Your task to perform on an android device: Open privacy settings Image 0: 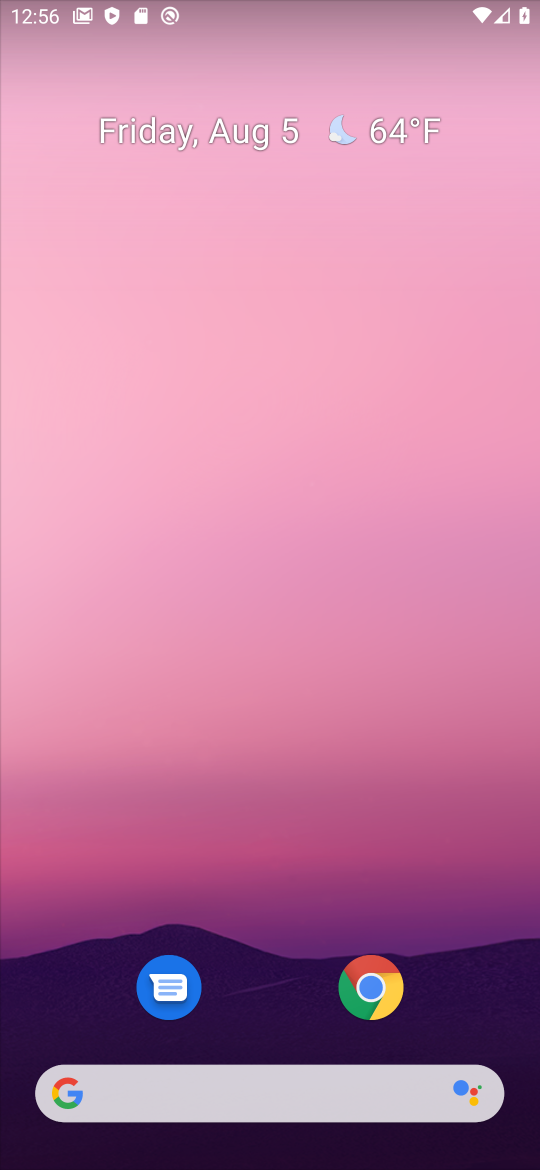
Step 0: click (268, 486)
Your task to perform on an android device: Open privacy settings Image 1: 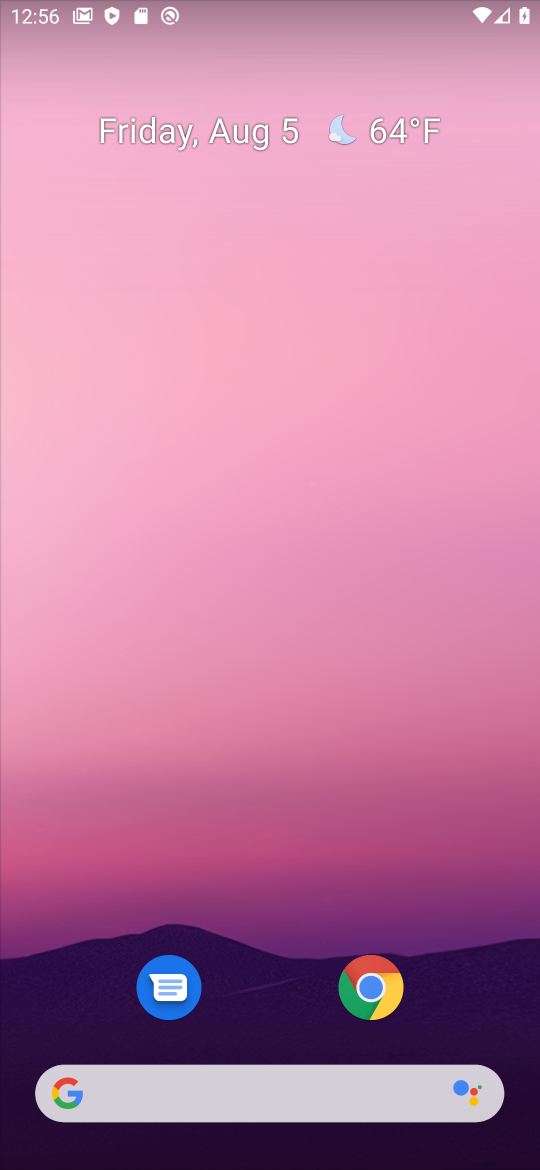
Step 1: drag from (293, 277) to (71, 30)
Your task to perform on an android device: Open privacy settings Image 2: 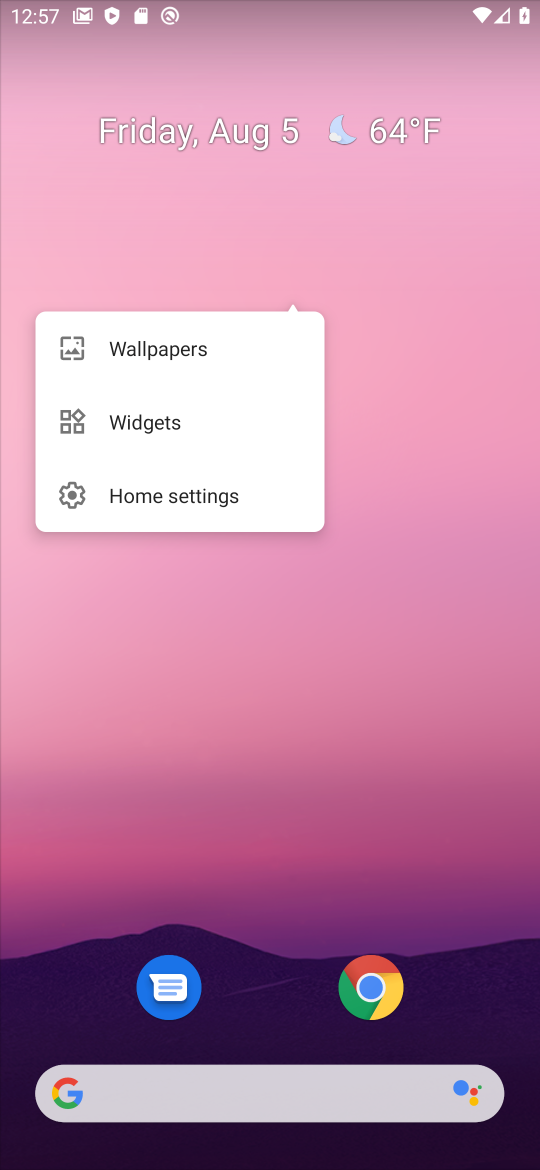
Step 2: drag from (350, 178) to (432, 322)
Your task to perform on an android device: Open privacy settings Image 3: 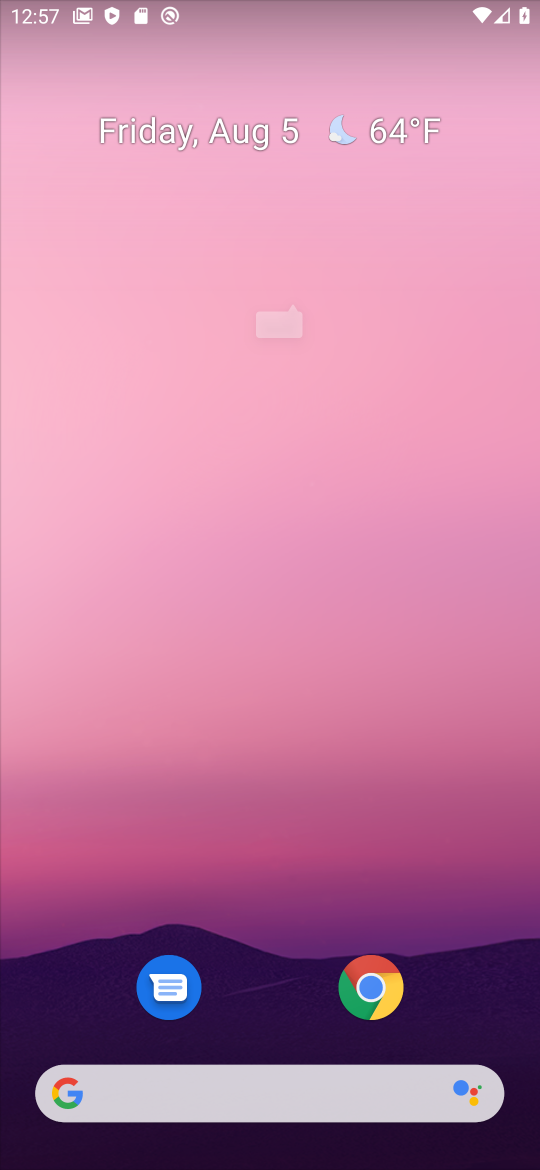
Step 3: drag from (222, 326) to (278, 655)
Your task to perform on an android device: Open privacy settings Image 4: 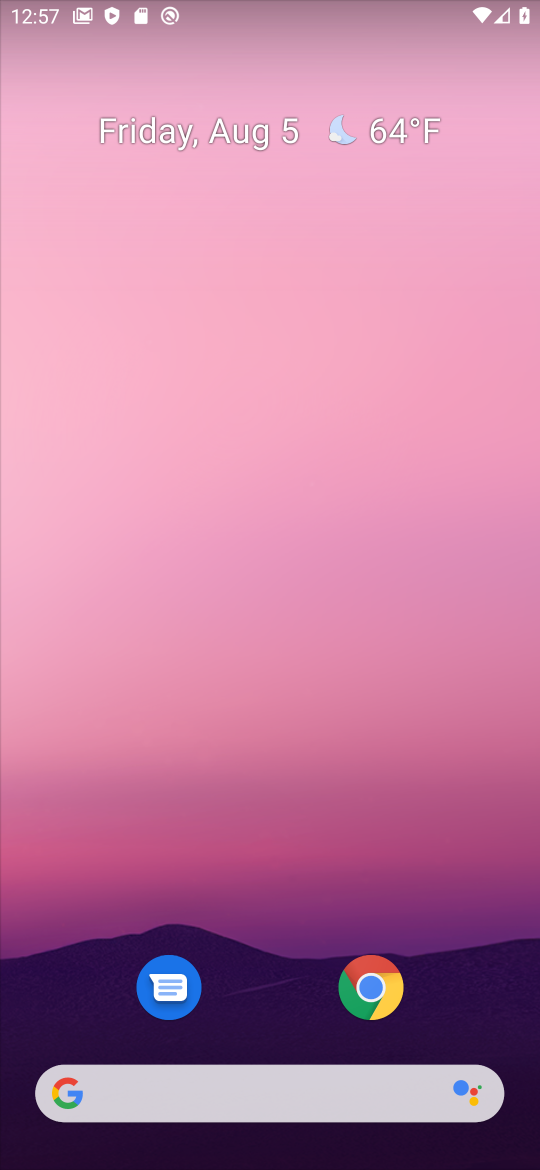
Step 4: drag from (235, 614) to (153, 423)
Your task to perform on an android device: Open privacy settings Image 5: 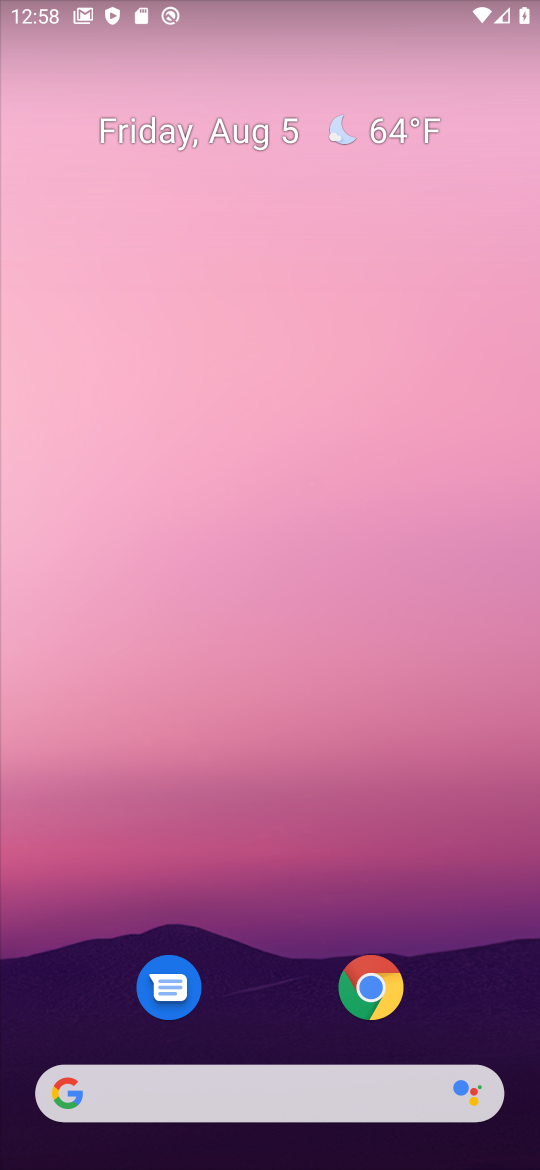
Step 5: drag from (289, 1052) to (322, 777)
Your task to perform on an android device: Open privacy settings Image 6: 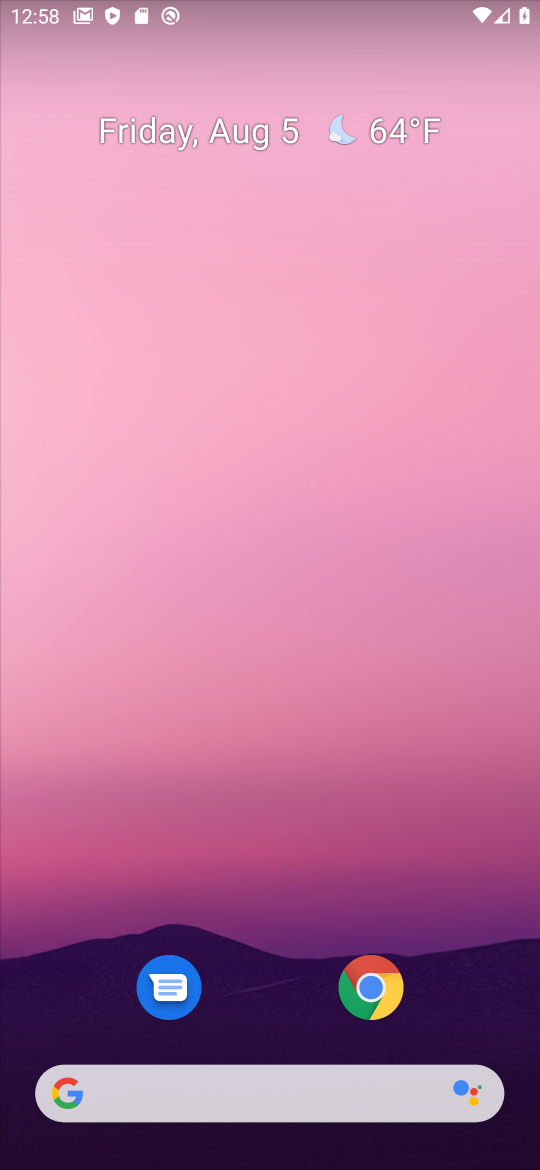
Step 6: drag from (172, 593) to (278, 334)
Your task to perform on an android device: Open privacy settings Image 7: 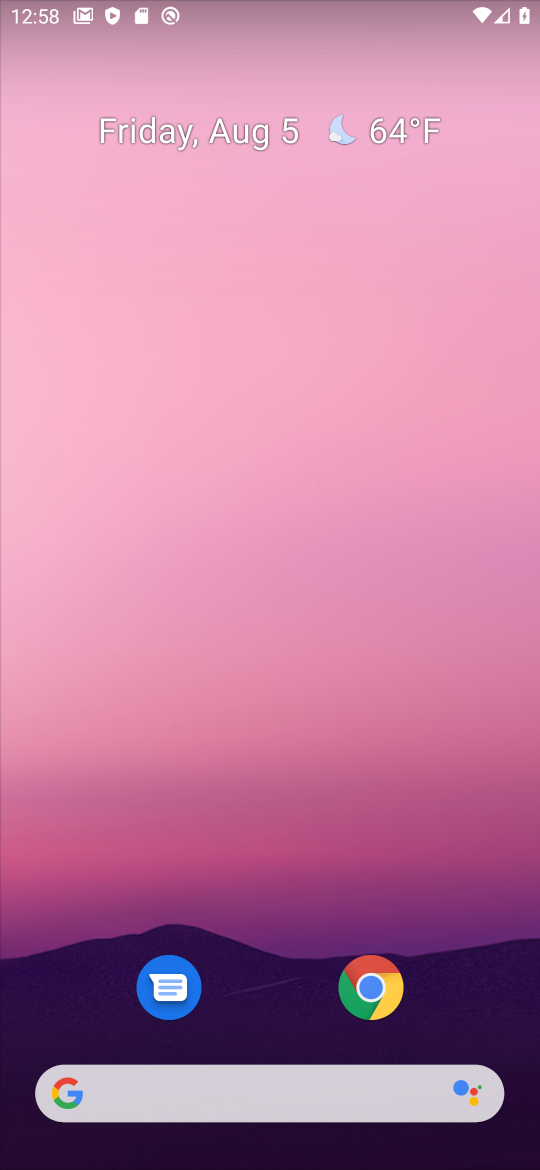
Step 7: click (265, 529)
Your task to perform on an android device: Open privacy settings Image 8: 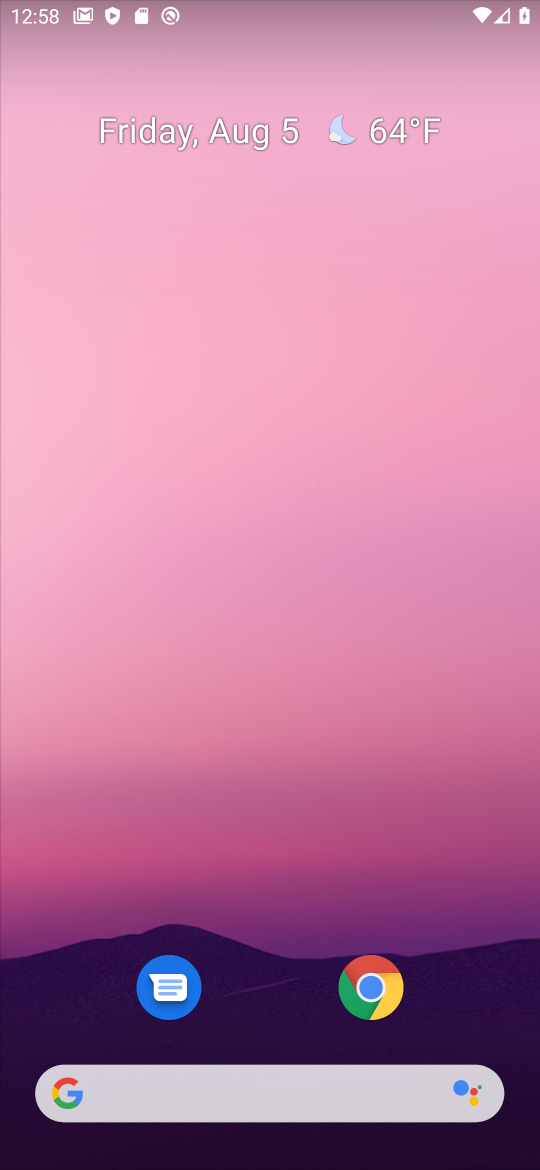
Step 8: drag from (271, 857) to (240, 372)
Your task to perform on an android device: Open privacy settings Image 9: 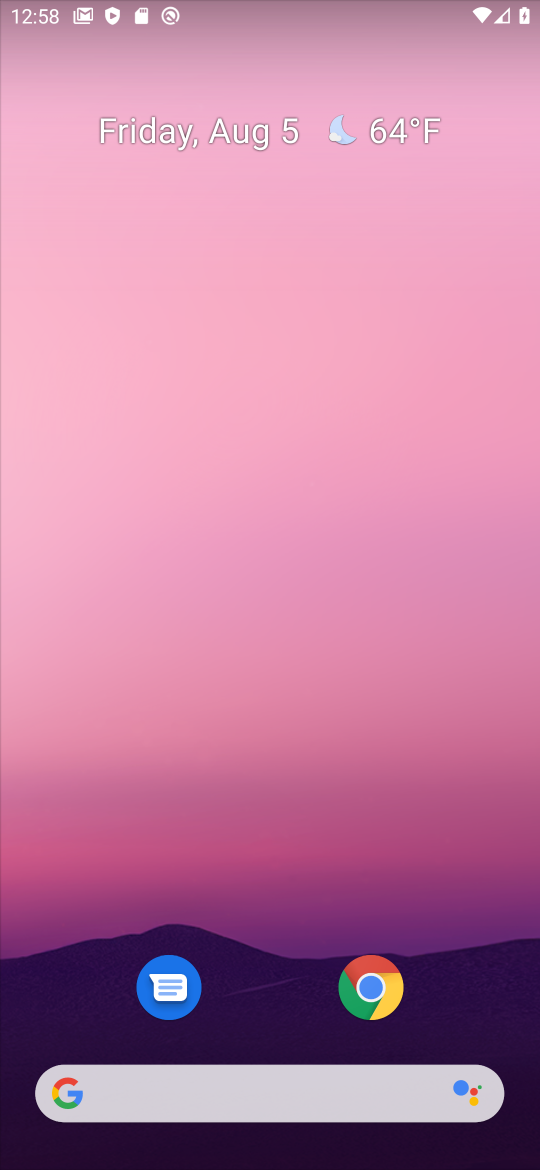
Step 9: click (154, 510)
Your task to perform on an android device: Open privacy settings Image 10: 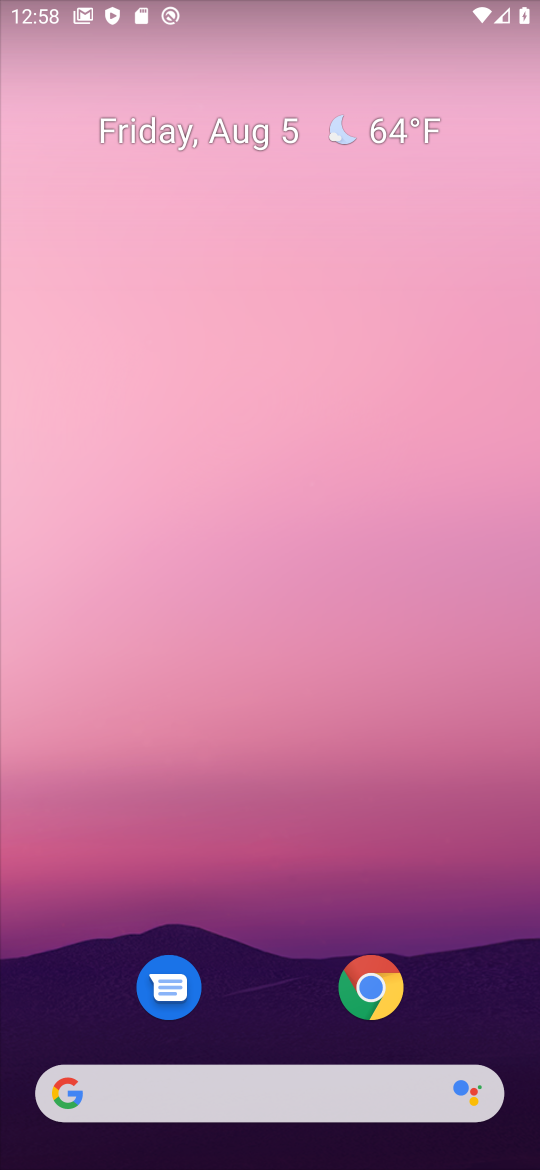
Step 10: drag from (183, 625) to (146, 373)
Your task to perform on an android device: Open privacy settings Image 11: 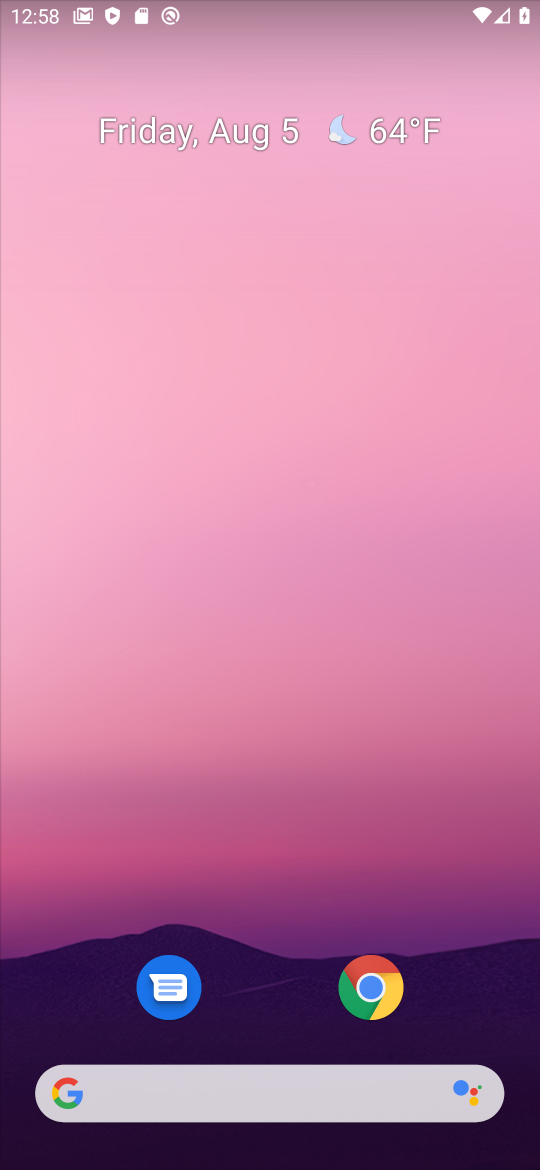
Step 11: drag from (174, 707) to (253, 416)
Your task to perform on an android device: Open privacy settings Image 12: 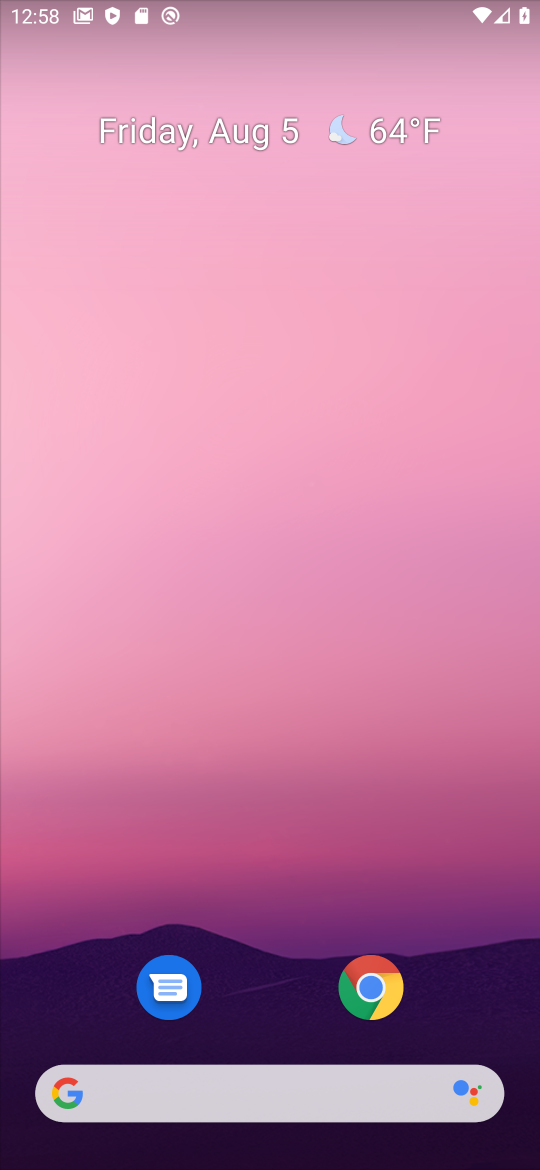
Step 12: drag from (287, 1005) to (233, 484)
Your task to perform on an android device: Open privacy settings Image 13: 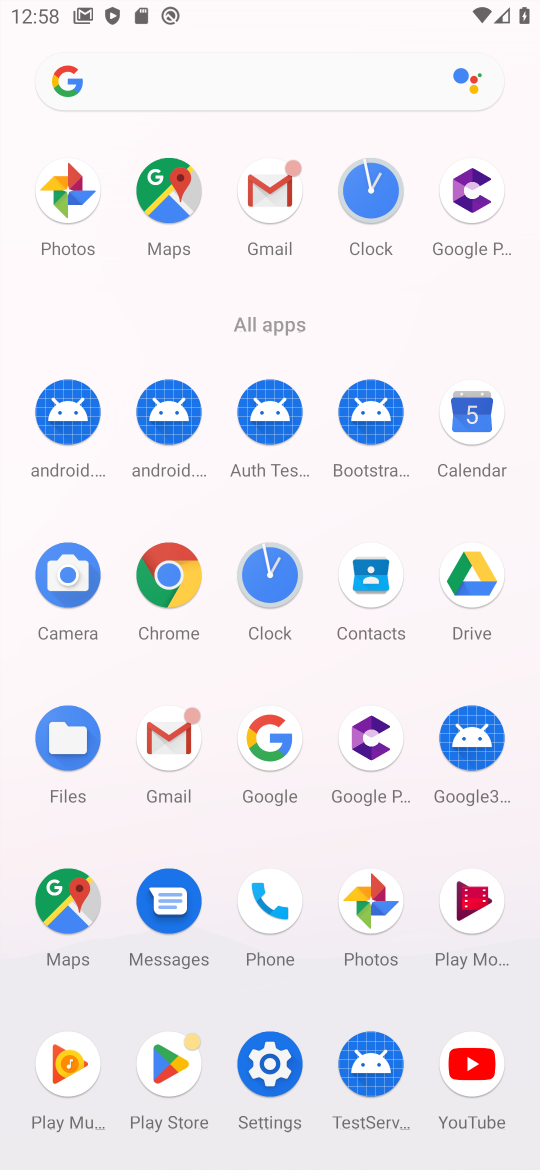
Step 13: drag from (230, 1045) to (228, 567)
Your task to perform on an android device: Open privacy settings Image 14: 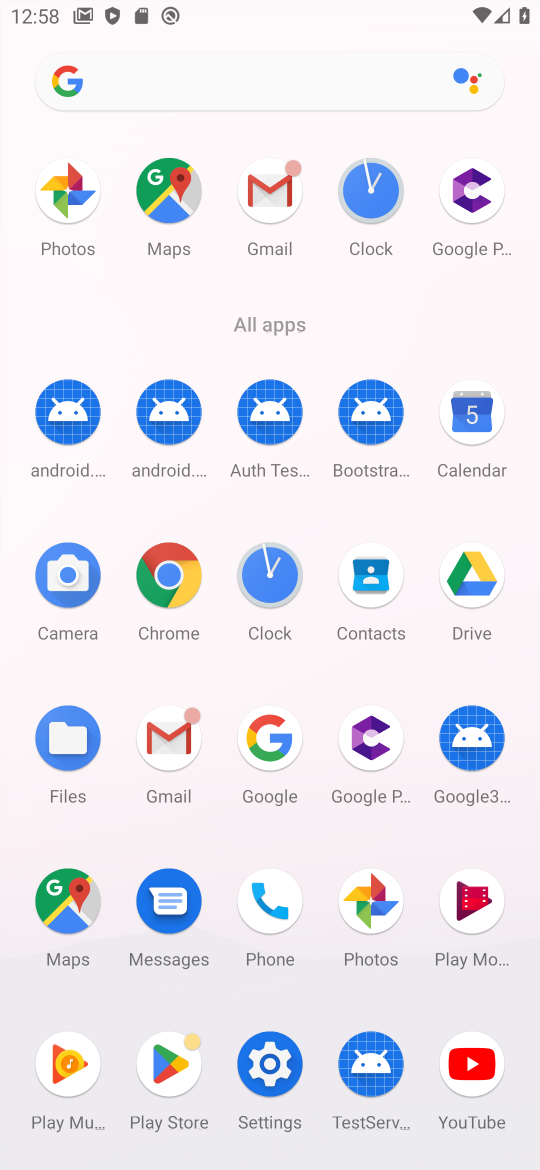
Step 14: click (263, 1076)
Your task to perform on an android device: Open privacy settings Image 15: 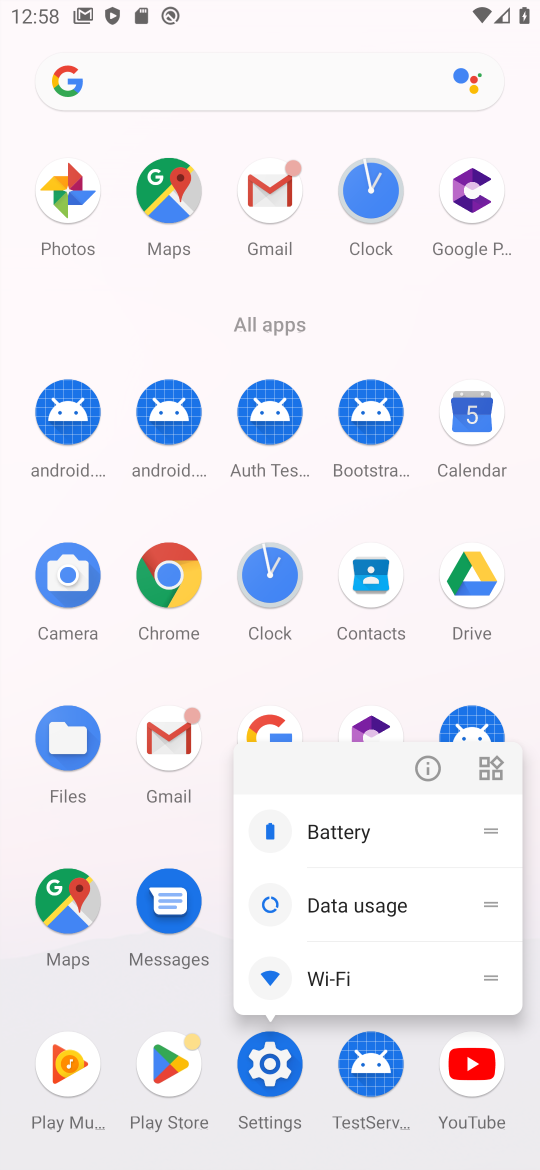
Step 15: click (324, 831)
Your task to perform on an android device: Open privacy settings Image 16: 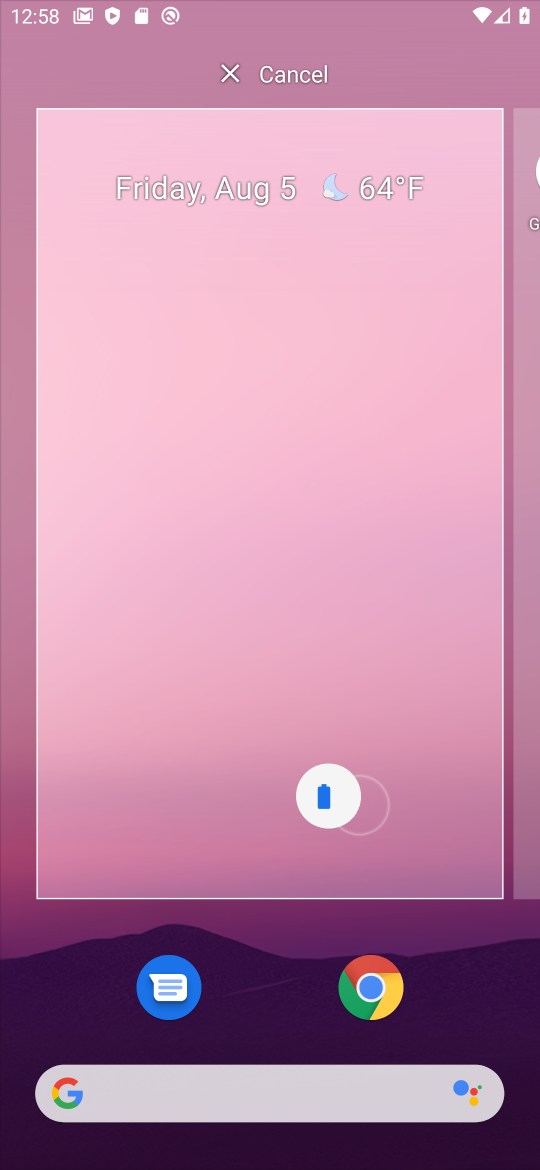
Step 16: drag from (402, 800) to (271, 258)
Your task to perform on an android device: Open privacy settings Image 17: 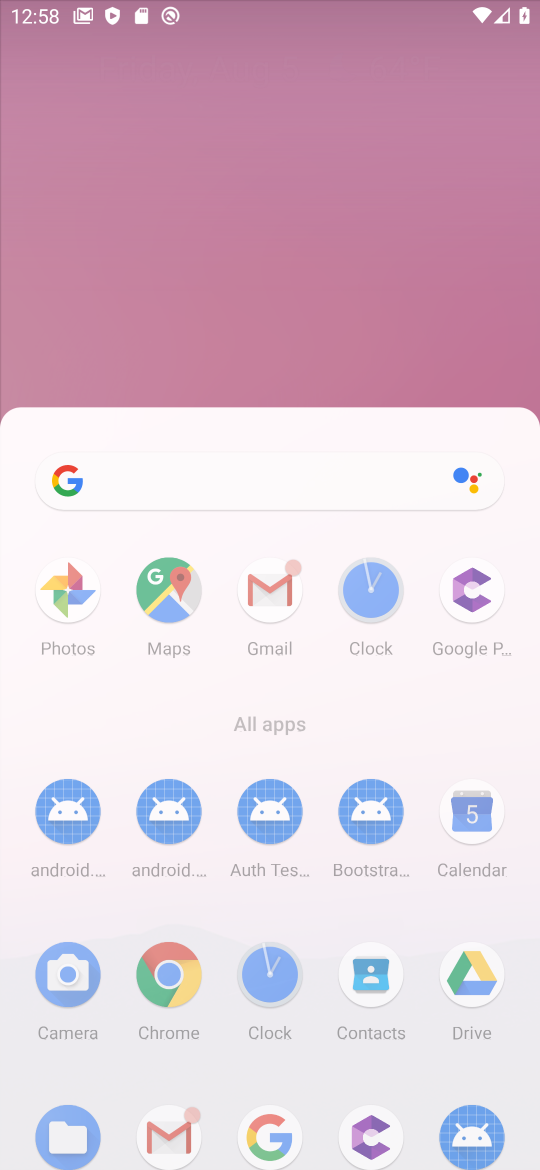
Step 17: drag from (281, 942) to (300, 599)
Your task to perform on an android device: Open privacy settings Image 18: 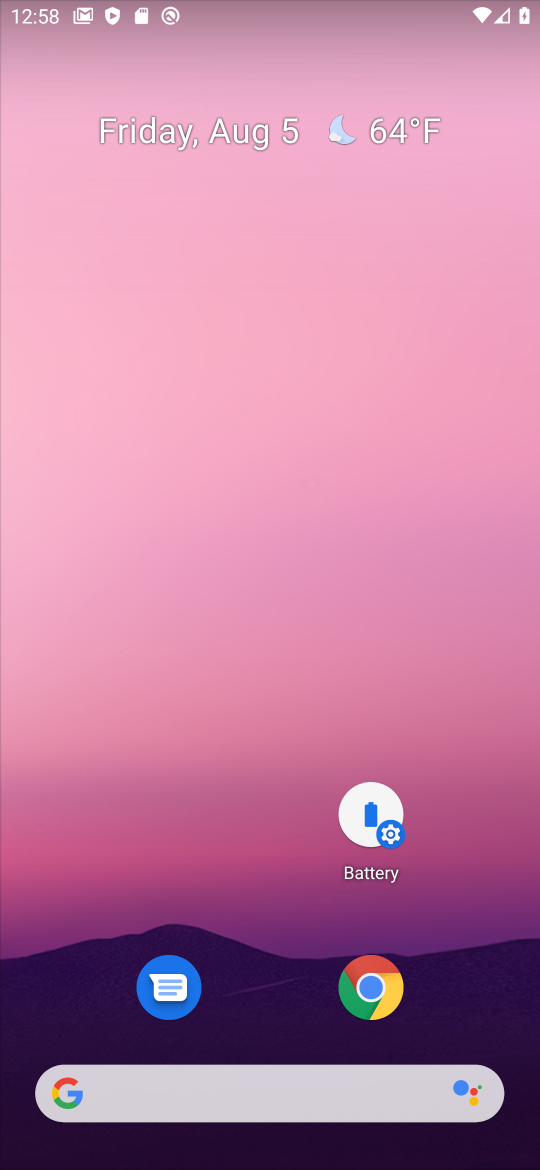
Step 18: click (214, 362)
Your task to perform on an android device: Open privacy settings Image 19: 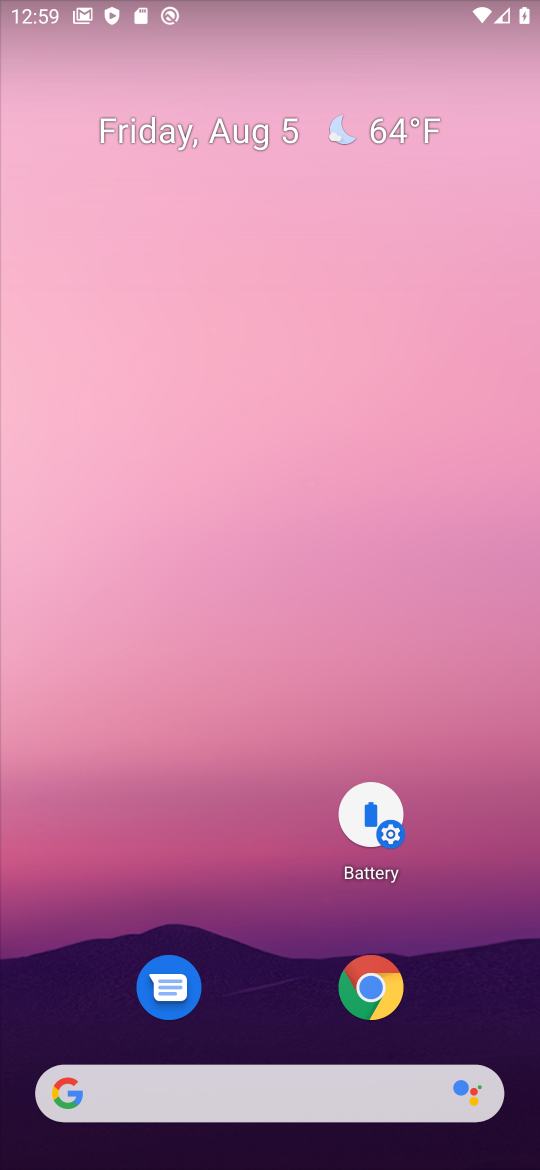
Step 19: drag from (211, 433) to (258, 305)
Your task to perform on an android device: Open privacy settings Image 20: 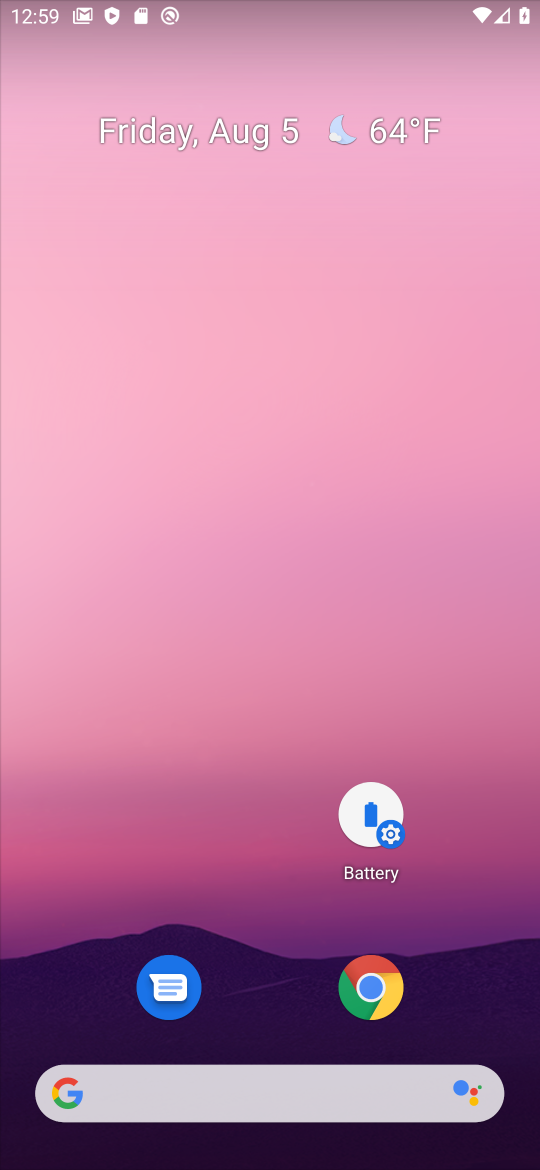
Step 20: drag from (264, 701) to (233, 278)
Your task to perform on an android device: Open privacy settings Image 21: 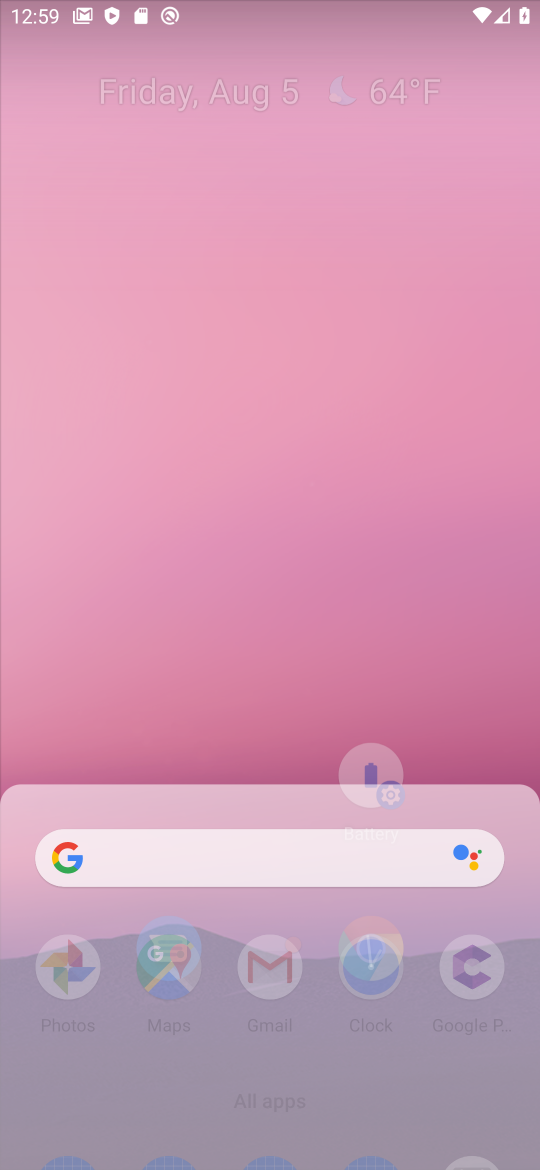
Step 21: click (169, 112)
Your task to perform on an android device: Open privacy settings Image 22: 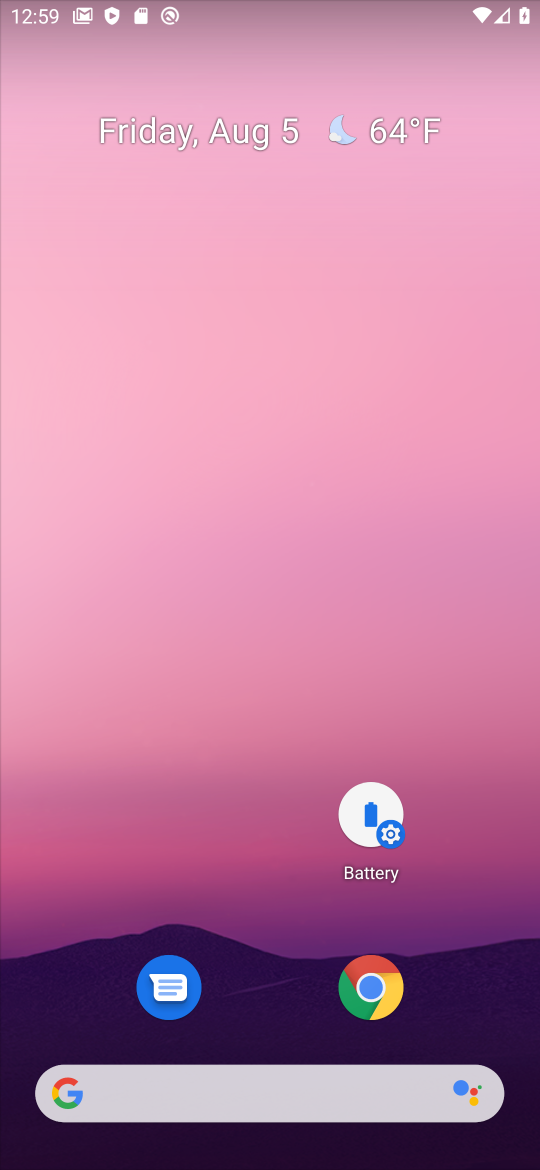
Step 22: drag from (282, 967) to (311, 237)
Your task to perform on an android device: Open privacy settings Image 23: 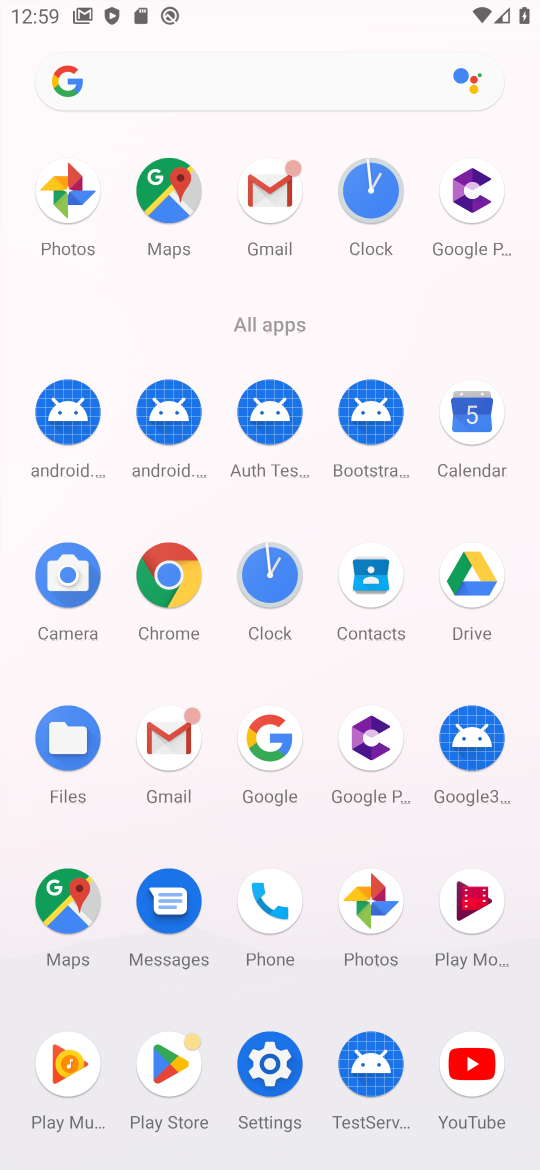
Step 23: drag from (266, 1060) to (312, 1028)
Your task to perform on an android device: Open privacy settings Image 24: 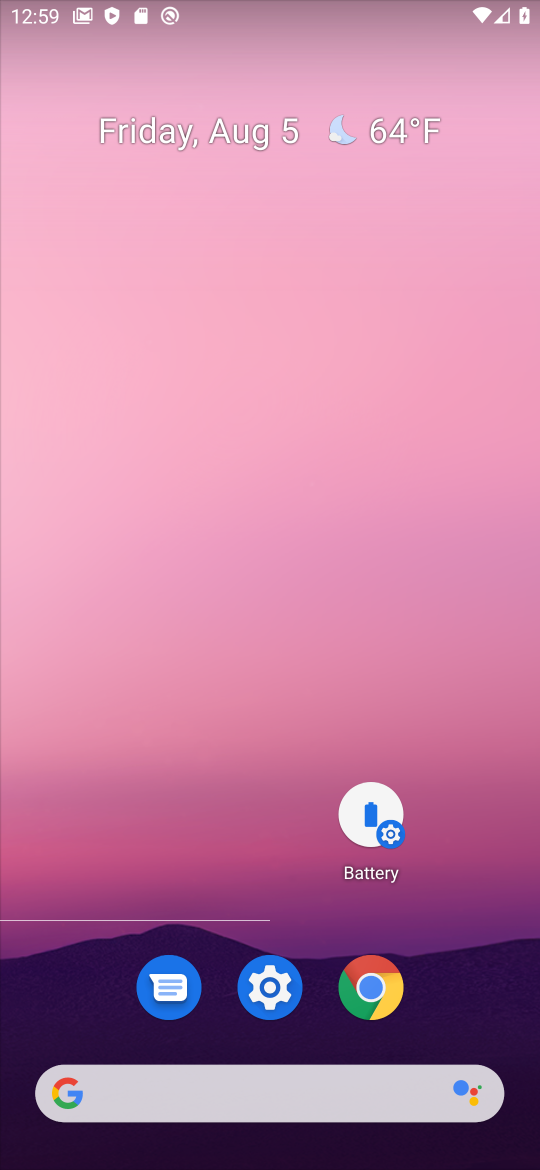
Step 24: drag from (336, 756) to (288, 199)
Your task to perform on an android device: Open privacy settings Image 25: 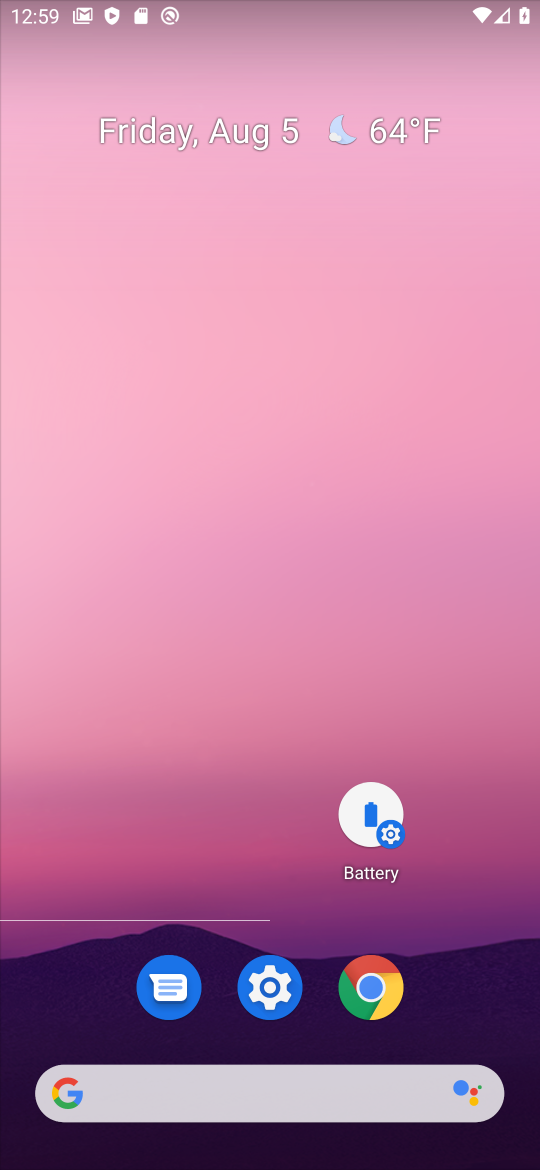
Step 25: click (325, 283)
Your task to perform on an android device: Open privacy settings Image 26: 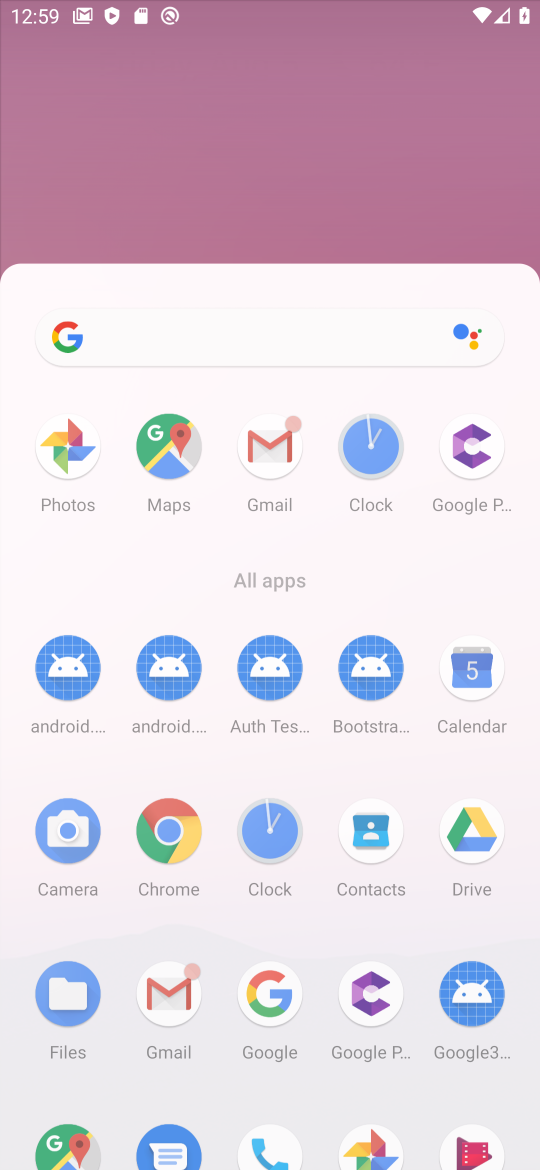
Step 26: click (379, 331)
Your task to perform on an android device: Open privacy settings Image 27: 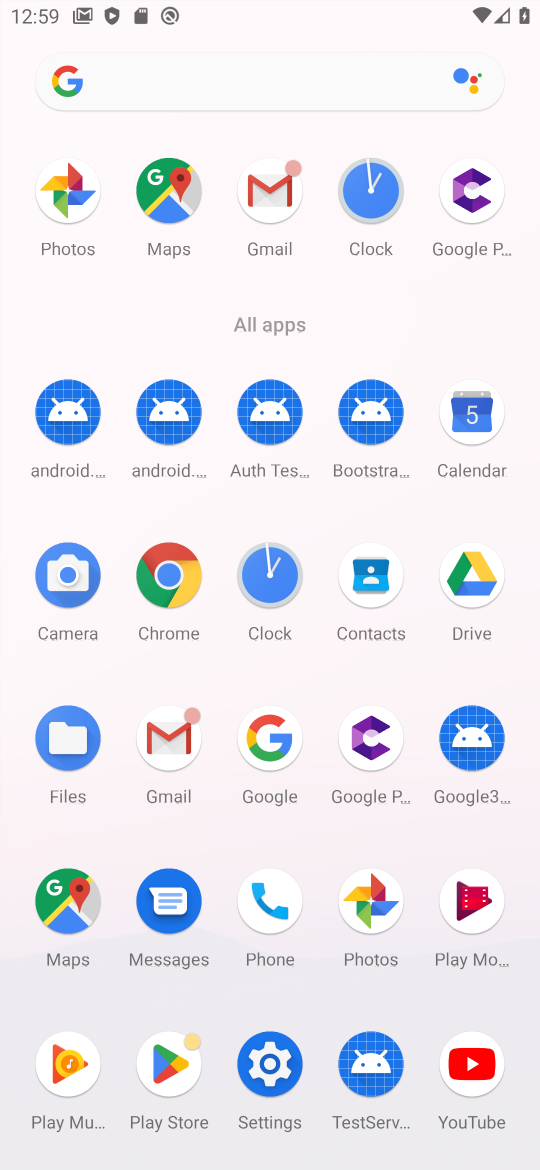
Step 27: click (268, 1064)
Your task to perform on an android device: Open privacy settings Image 28: 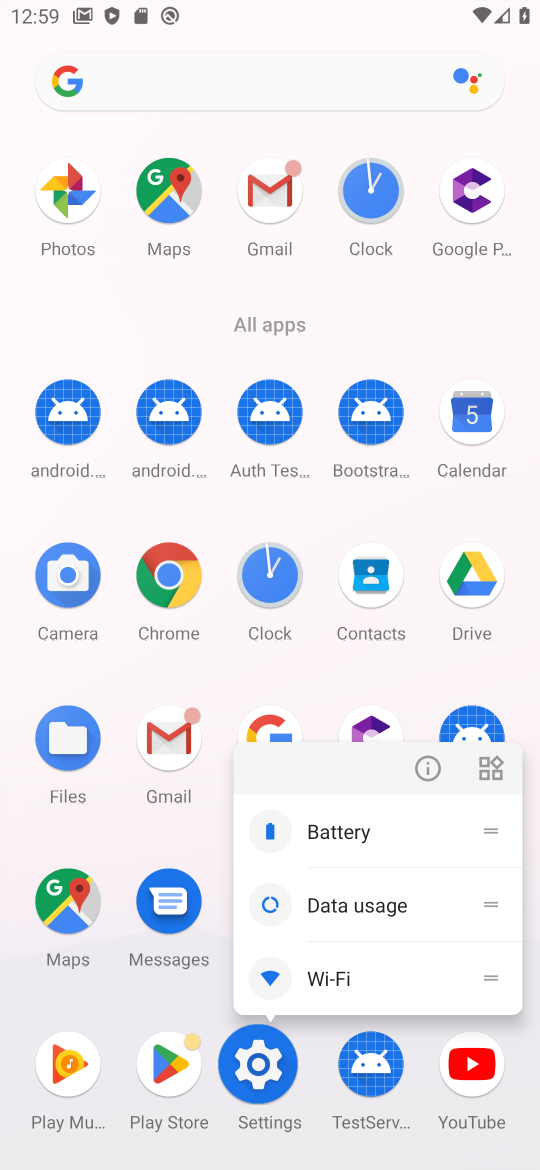
Step 28: click (256, 1064)
Your task to perform on an android device: Open privacy settings Image 29: 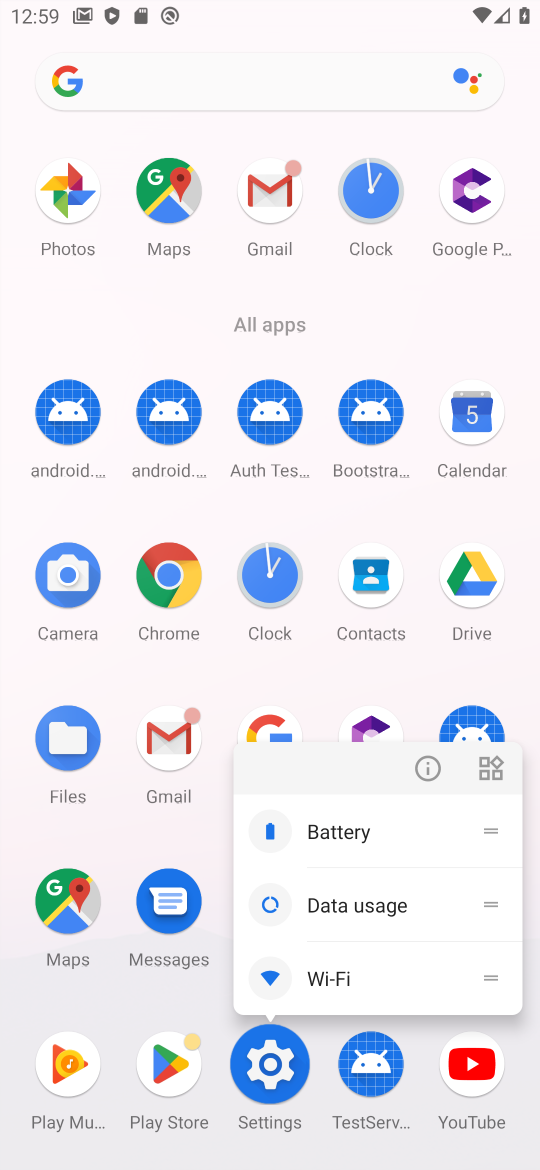
Step 29: click (256, 1064)
Your task to perform on an android device: Open privacy settings Image 30: 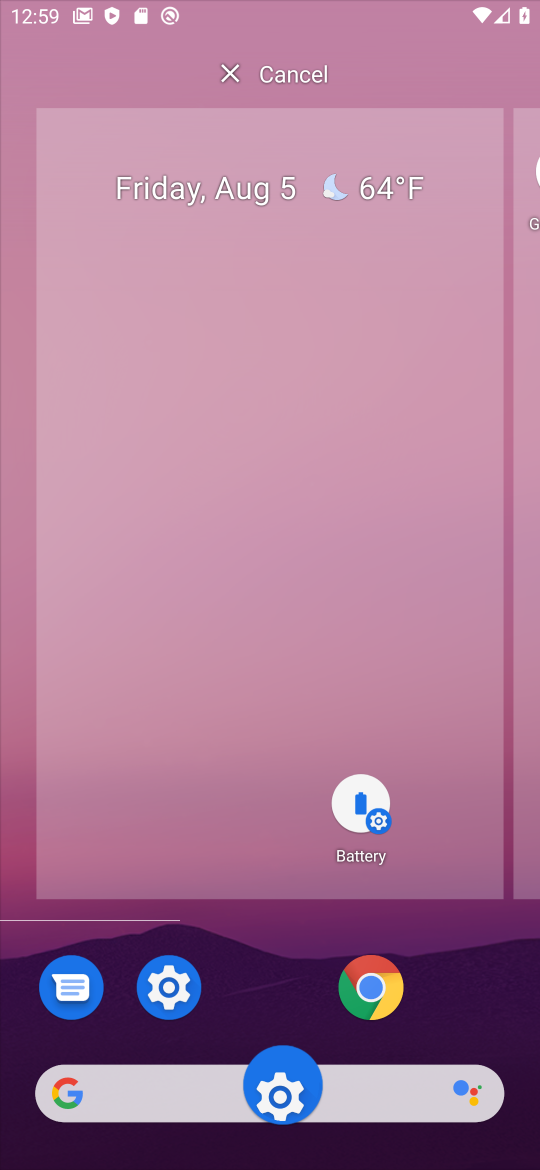
Step 30: click (275, 1079)
Your task to perform on an android device: Open privacy settings Image 31: 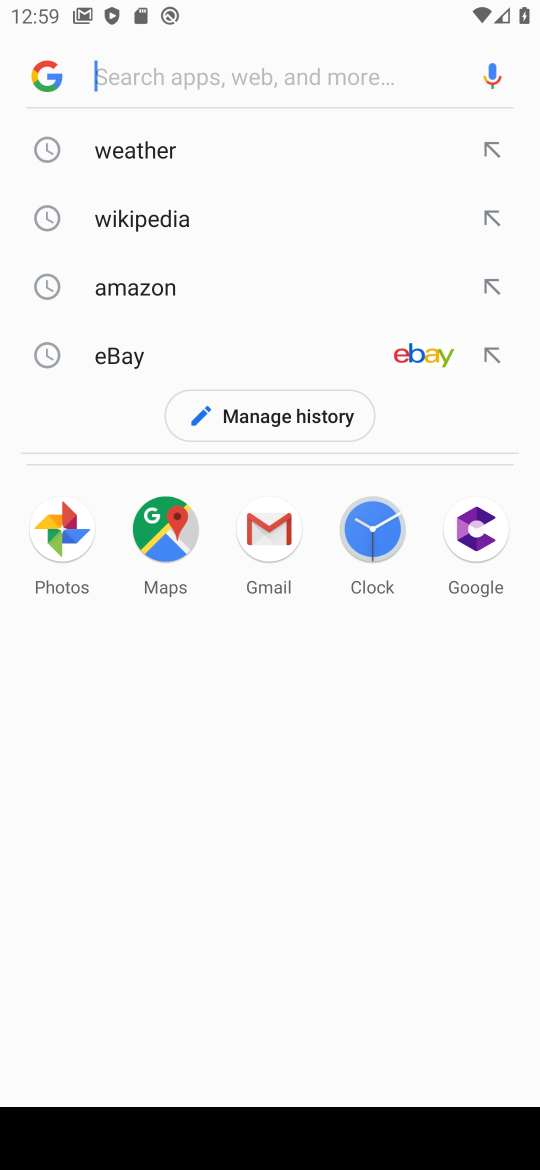
Step 31: task complete